Your task to perform on an android device: Do I have any events today? Image 0: 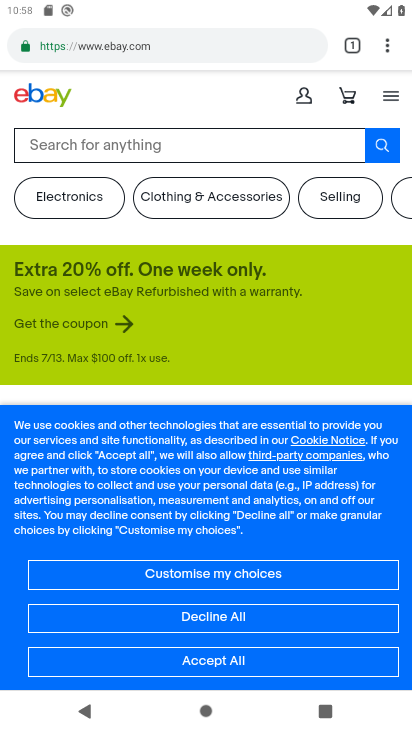
Step 0: press home button
Your task to perform on an android device: Do I have any events today? Image 1: 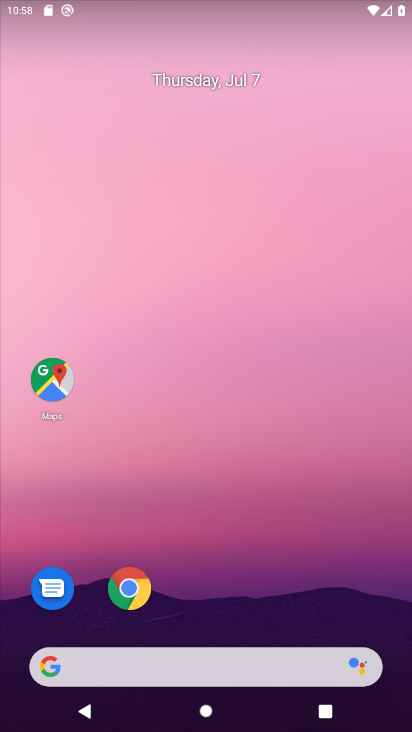
Step 1: drag from (229, 673) to (349, 115)
Your task to perform on an android device: Do I have any events today? Image 2: 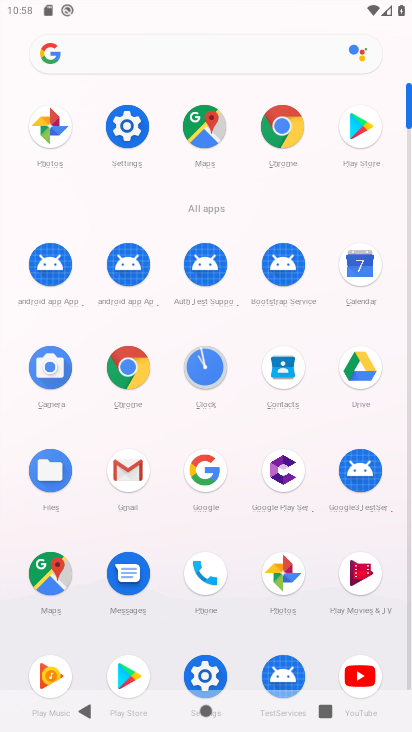
Step 2: click (355, 274)
Your task to perform on an android device: Do I have any events today? Image 3: 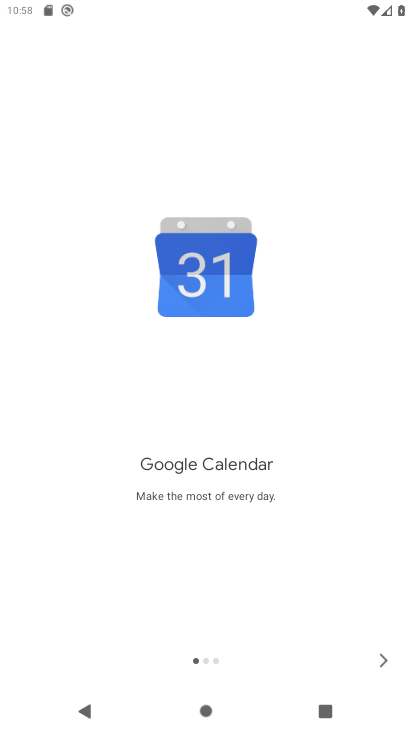
Step 3: click (380, 656)
Your task to perform on an android device: Do I have any events today? Image 4: 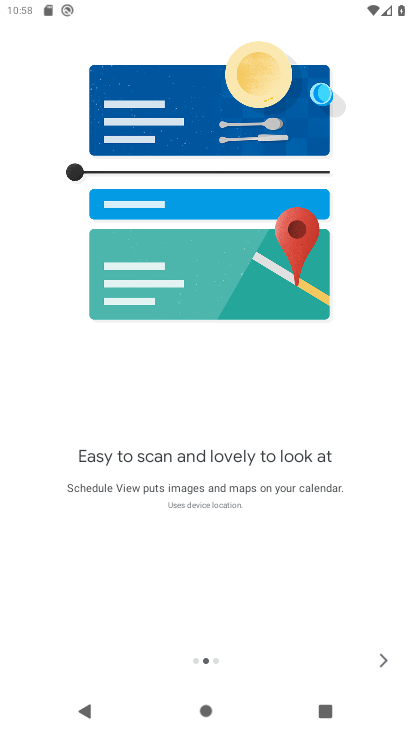
Step 4: click (380, 656)
Your task to perform on an android device: Do I have any events today? Image 5: 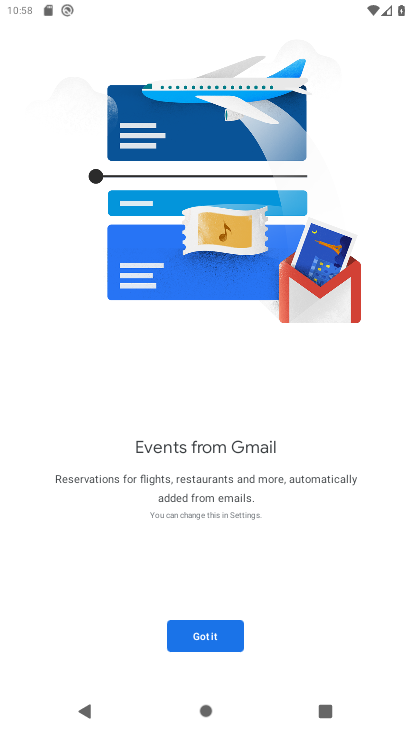
Step 5: click (221, 644)
Your task to perform on an android device: Do I have any events today? Image 6: 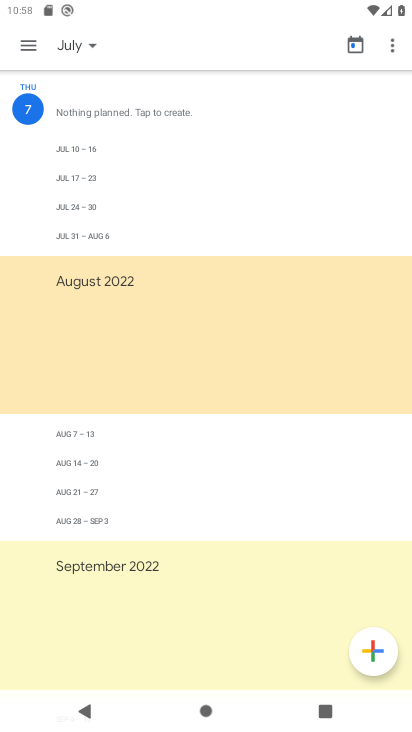
Step 6: click (27, 49)
Your task to perform on an android device: Do I have any events today? Image 7: 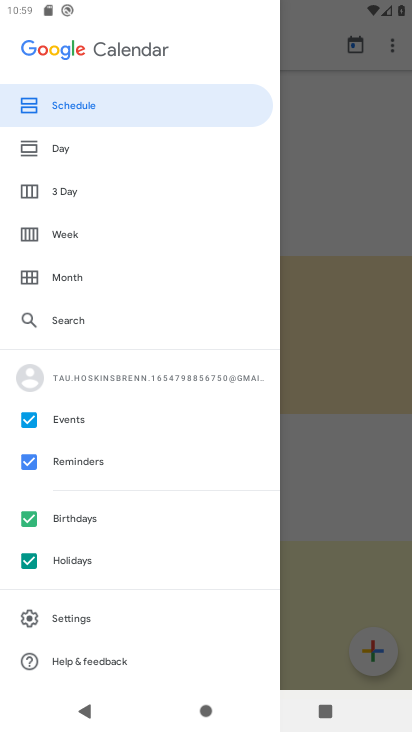
Step 7: click (103, 113)
Your task to perform on an android device: Do I have any events today? Image 8: 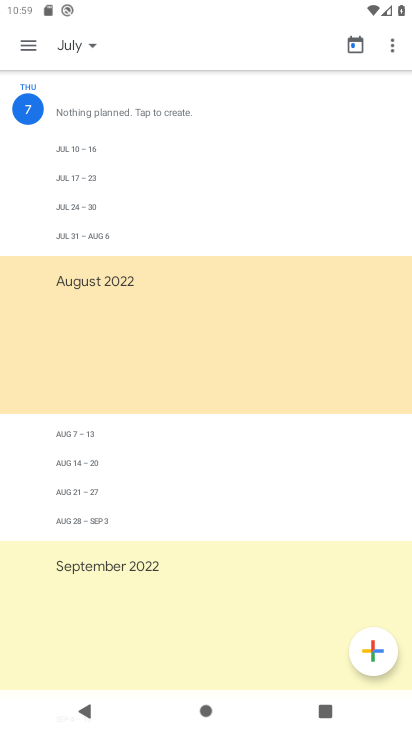
Step 8: task complete